Your task to perform on an android device: clear all cookies in the chrome app Image 0: 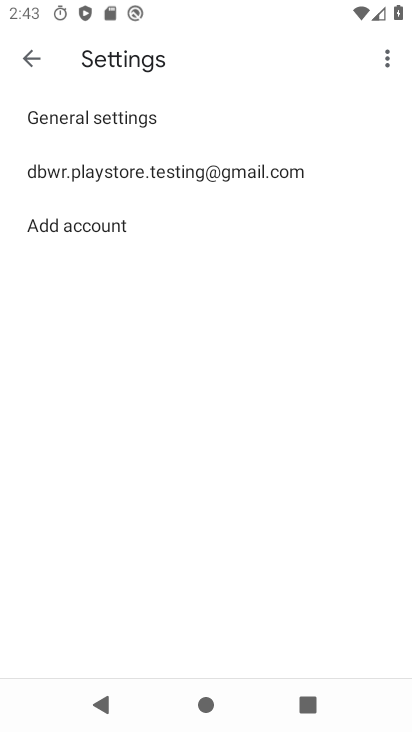
Step 0: drag from (282, 548) to (270, 104)
Your task to perform on an android device: clear all cookies in the chrome app Image 1: 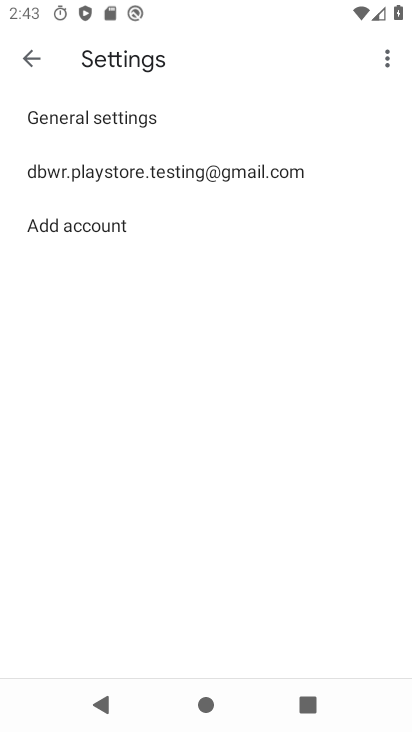
Step 1: press home button
Your task to perform on an android device: clear all cookies in the chrome app Image 2: 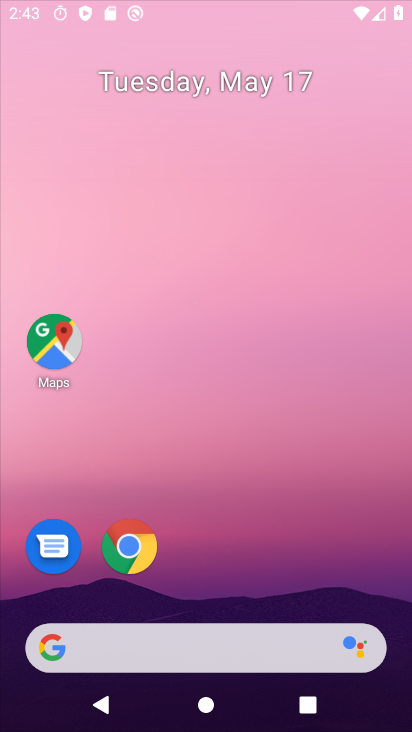
Step 2: drag from (200, 614) to (180, 132)
Your task to perform on an android device: clear all cookies in the chrome app Image 3: 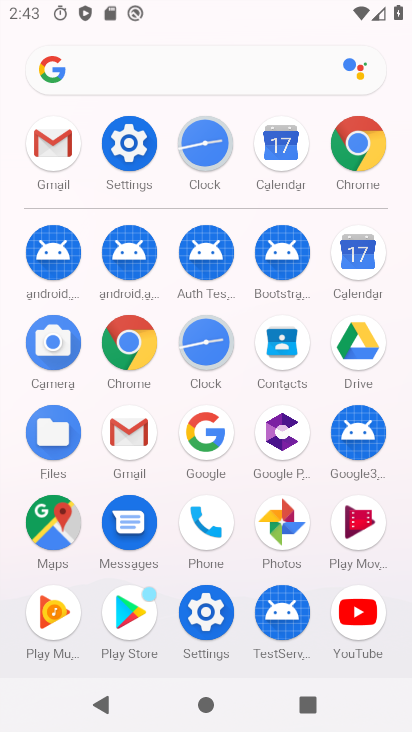
Step 3: click (354, 160)
Your task to perform on an android device: clear all cookies in the chrome app Image 4: 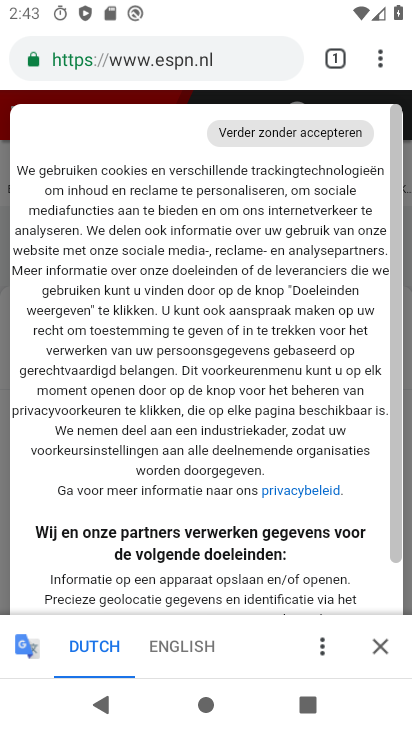
Step 4: click (374, 61)
Your task to perform on an android device: clear all cookies in the chrome app Image 5: 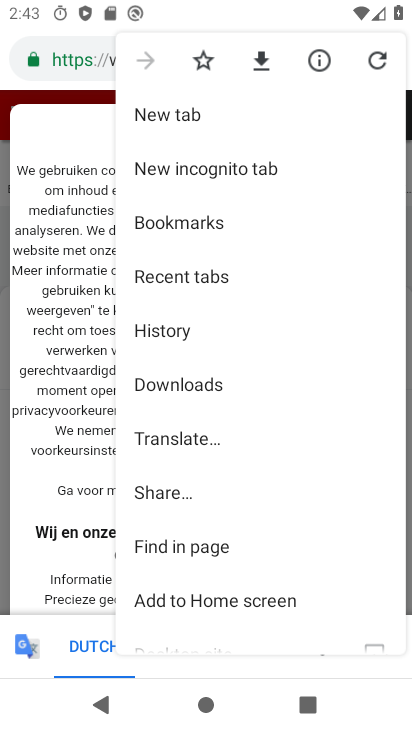
Step 5: drag from (194, 582) to (306, 158)
Your task to perform on an android device: clear all cookies in the chrome app Image 6: 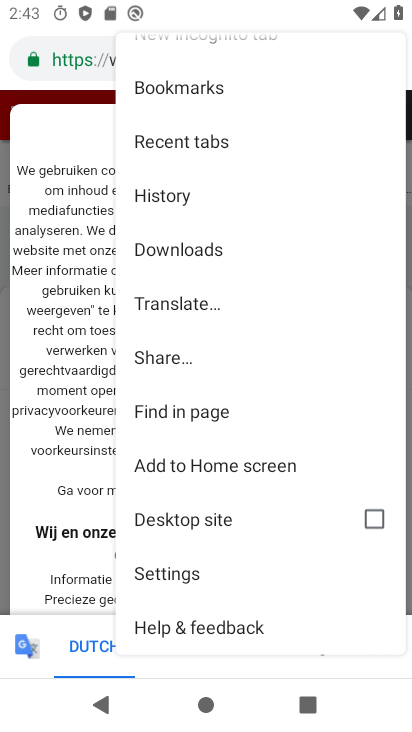
Step 6: click (176, 570)
Your task to perform on an android device: clear all cookies in the chrome app Image 7: 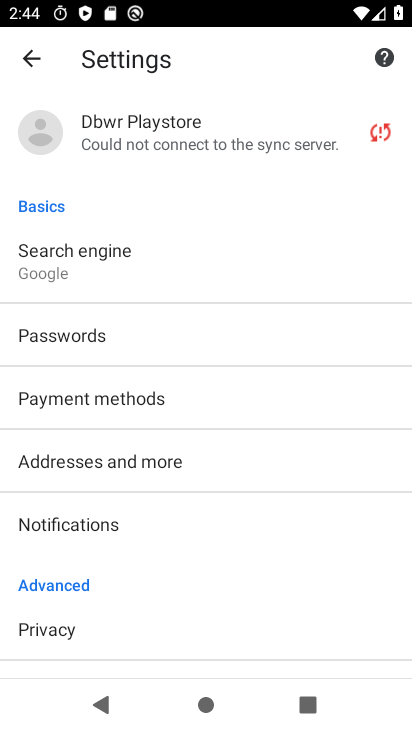
Step 7: drag from (177, 533) to (197, 231)
Your task to perform on an android device: clear all cookies in the chrome app Image 8: 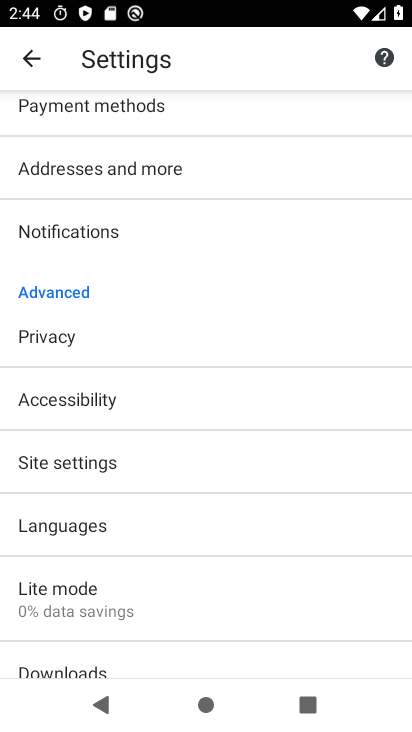
Step 8: click (85, 457)
Your task to perform on an android device: clear all cookies in the chrome app Image 9: 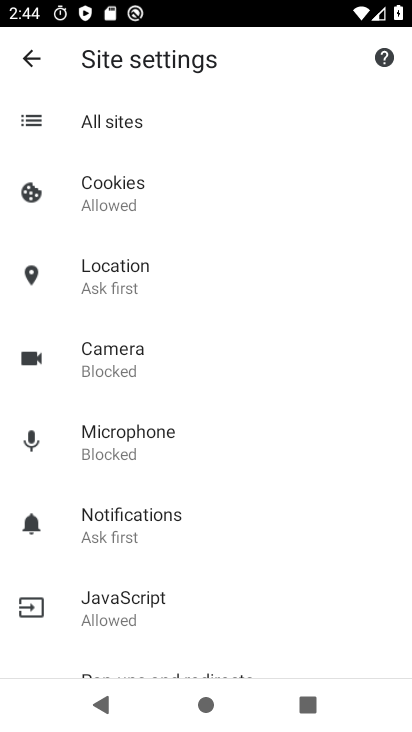
Step 9: drag from (173, 506) to (145, 184)
Your task to perform on an android device: clear all cookies in the chrome app Image 10: 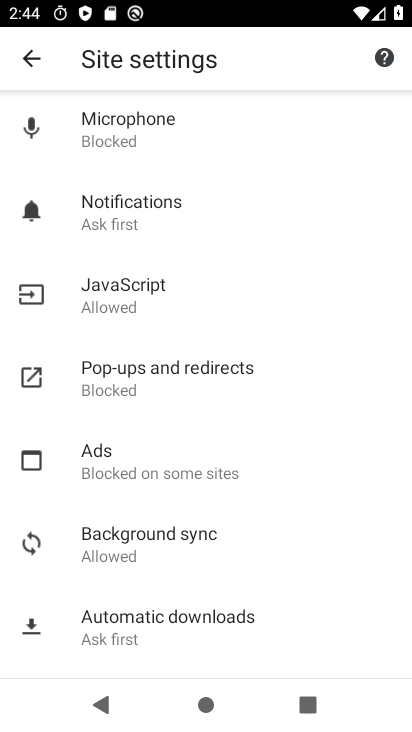
Step 10: drag from (203, 279) to (204, 707)
Your task to perform on an android device: clear all cookies in the chrome app Image 11: 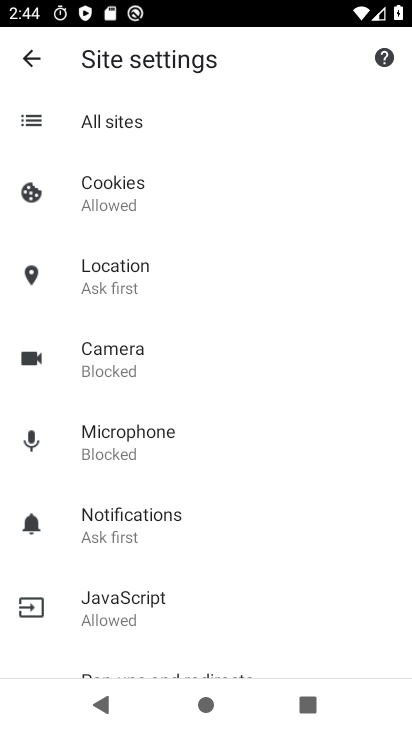
Step 11: click (211, 184)
Your task to perform on an android device: clear all cookies in the chrome app Image 12: 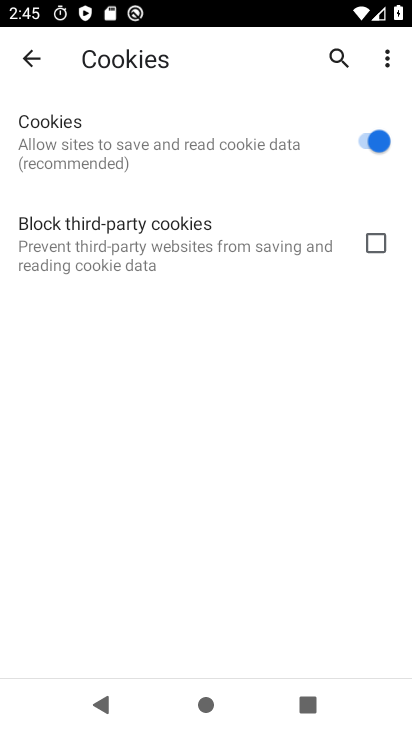
Step 12: task complete